Your task to perform on an android device: Open Chrome and go to the settings page Image 0: 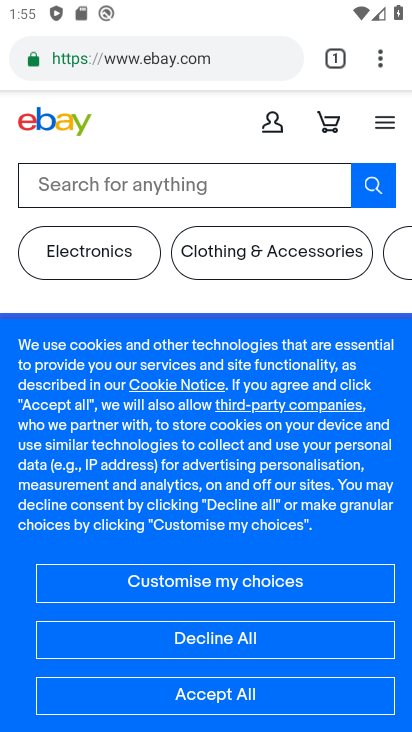
Step 0: drag from (383, 55) to (170, 630)
Your task to perform on an android device: Open Chrome and go to the settings page Image 1: 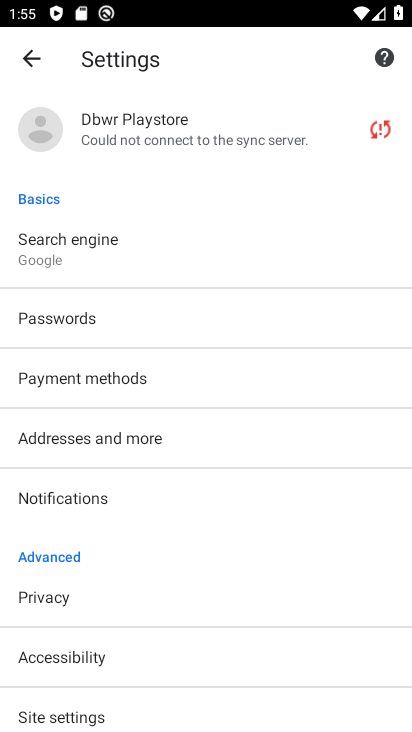
Step 1: task complete